Your task to perform on an android device: Is it going to rain tomorrow? Image 0: 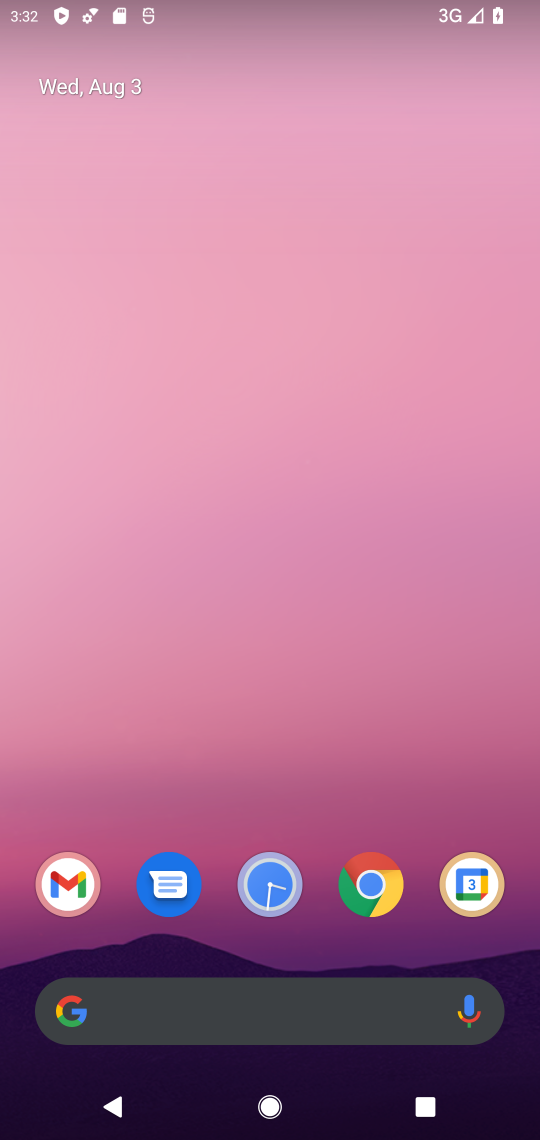
Step 0: click (268, 997)
Your task to perform on an android device: Is it going to rain tomorrow? Image 1: 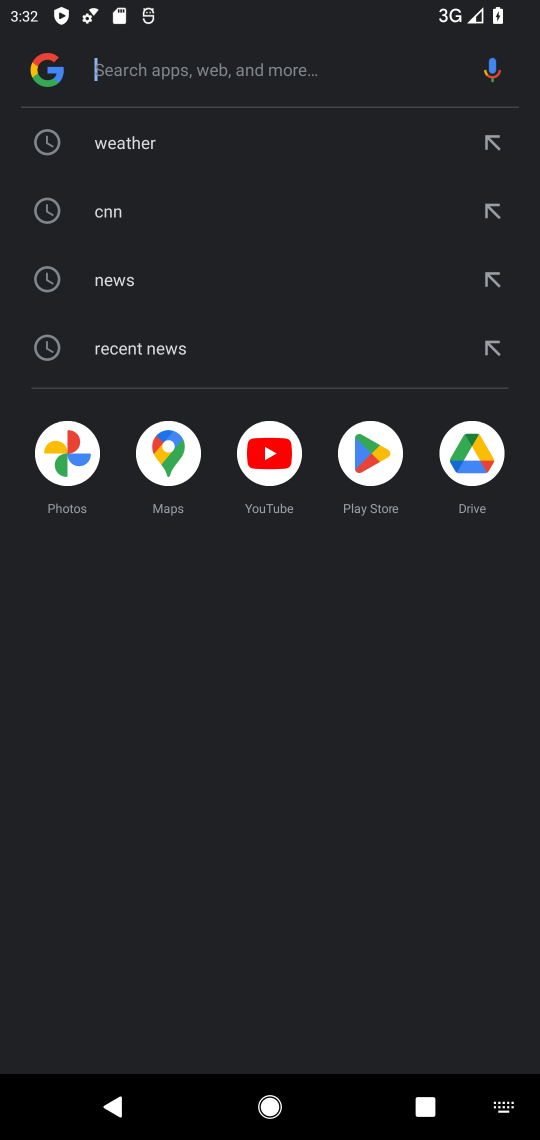
Step 1: type "rain"
Your task to perform on an android device: Is it going to rain tomorrow? Image 2: 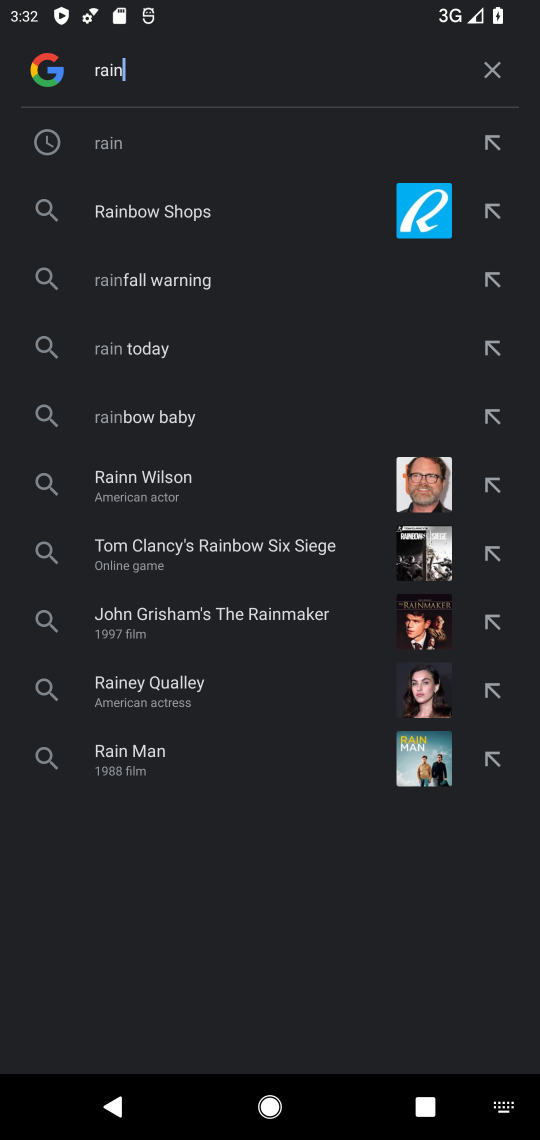
Step 2: click (270, 158)
Your task to perform on an android device: Is it going to rain tomorrow? Image 3: 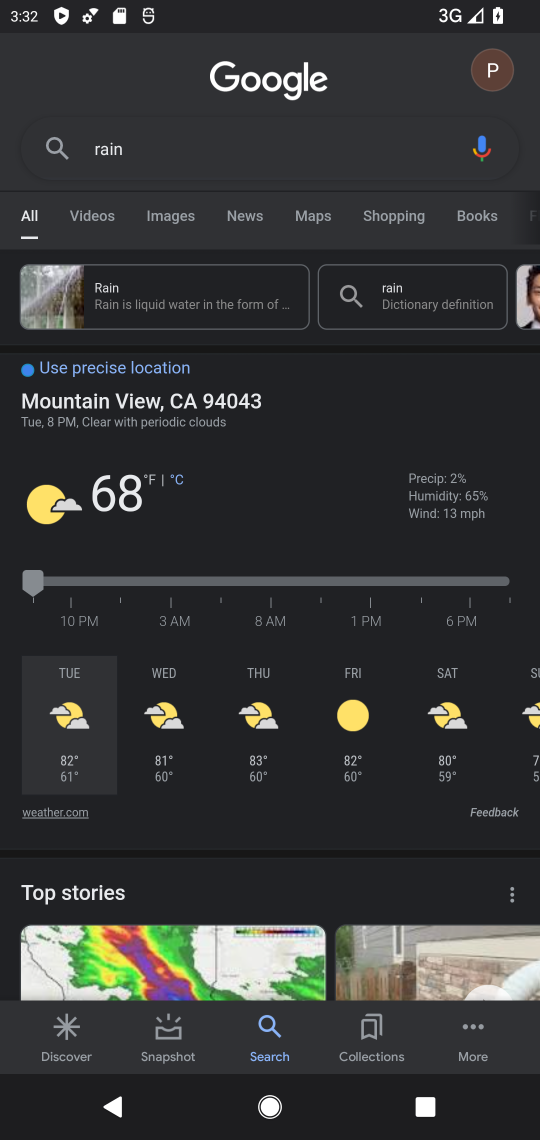
Step 3: task complete